Your task to perform on an android device: Open location settings Image 0: 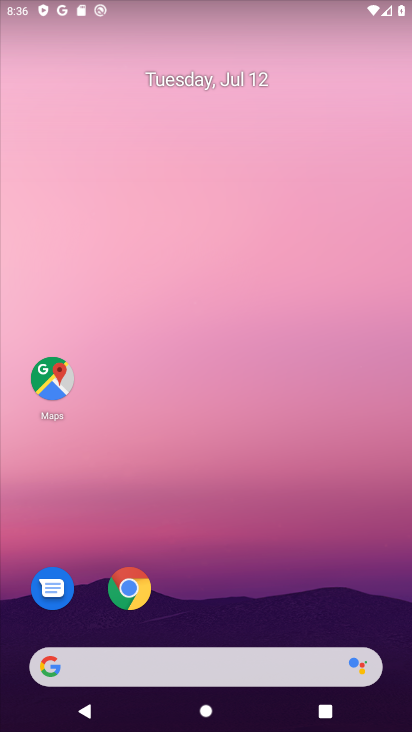
Step 0: click (237, 515)
Your task to perform on an android device: Open location settings Image 1: 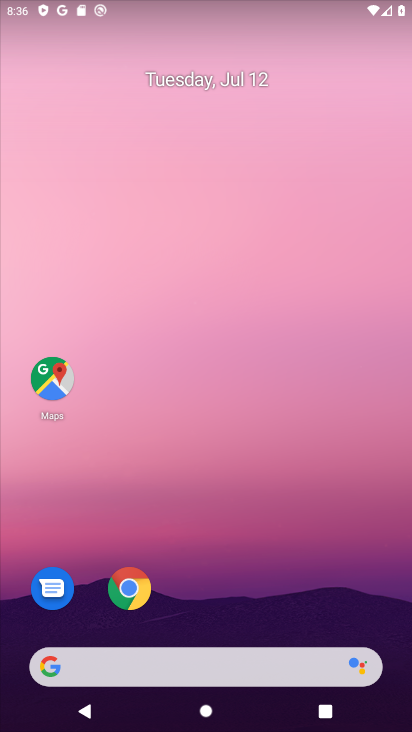
Step 1: drag from (212, 641) to (231, 245)
Your task to perform on an android device: Open location settings Image 2: 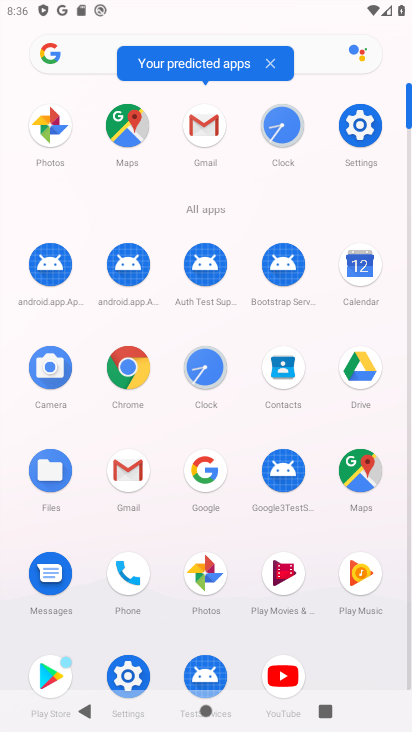
Step 2: click (127, 677)
Your task to perform on an android device: Open location settings Image 3: 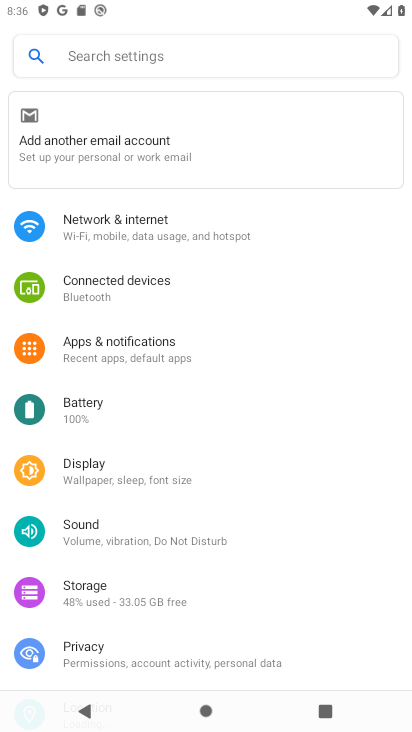
Step 3: drag from (132, 633) to (196, 369)
Your task to perform on an android device: Open location settings Image 4: 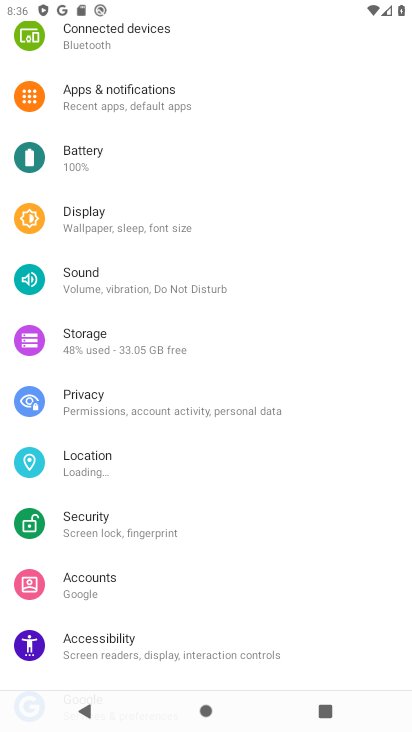
Step 4: click (116, 473)
Your task to perform on an android device: Open location settings Image 5: 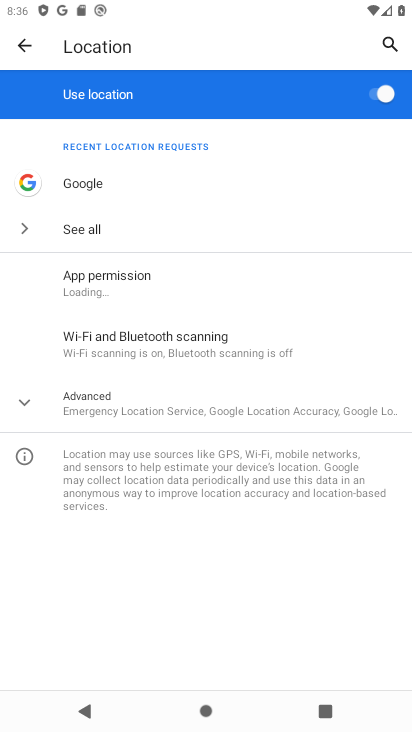
Step 5: task complete